Your task to perform on an android device: What's on my calendar today? Image 0: 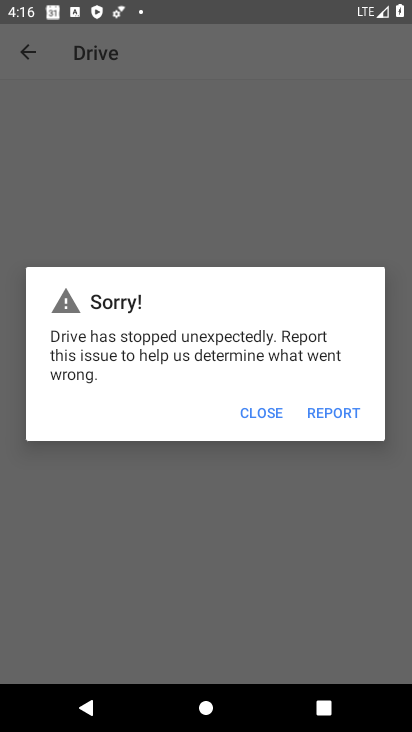
Step 0: press home button
Your task to perform on an android device: What's on my calendar today? Image 1: 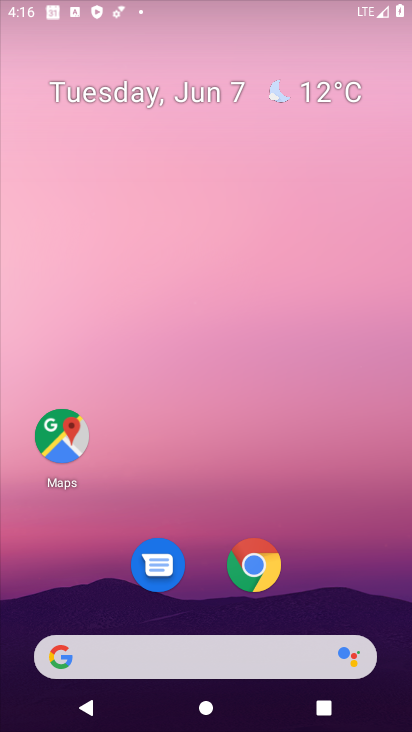
Step 1: drag from (221, 646) to (170, 68)
Your task to perform on an android device: What's on my calendar today? Image 2: 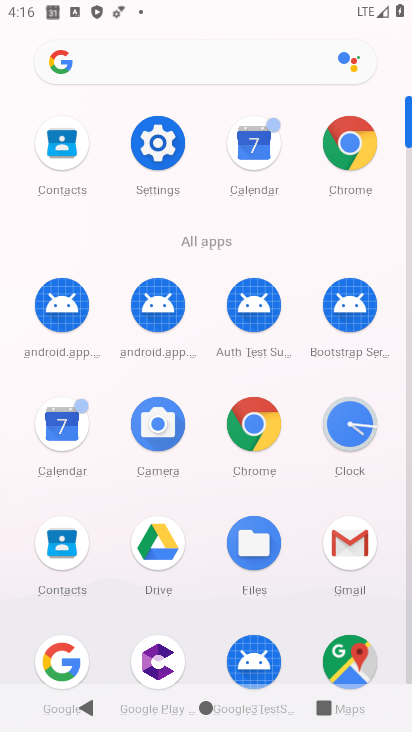
Step 2: click (73, 425)
Your task to perform on an android device: What's on my calendar today? Image 3: 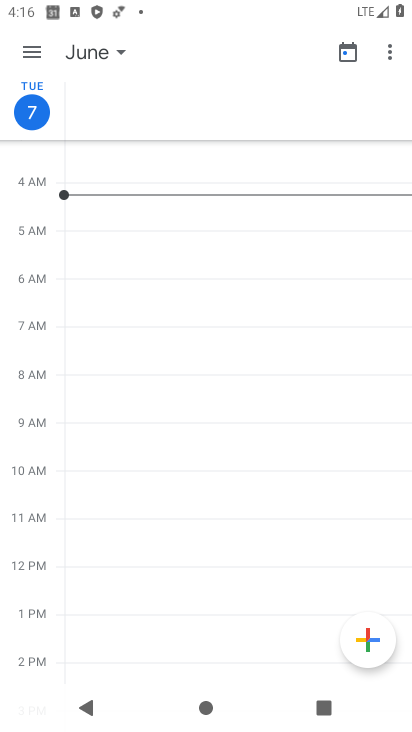
Step 3: click (118, 44)
Your task to perform on an android device: What's on my calendar today? Image 4: 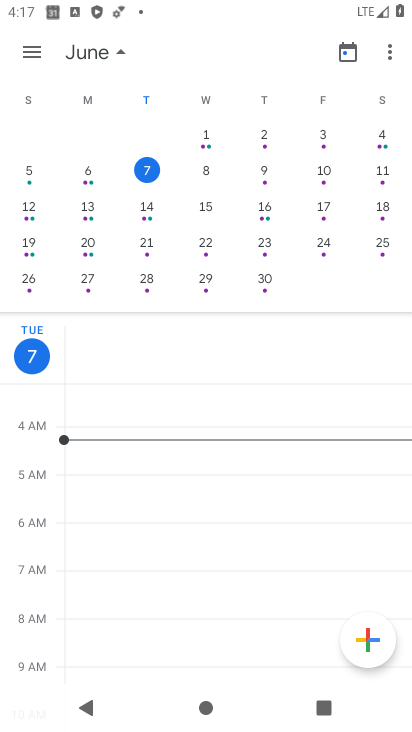
Step 4: task complete